Your task to perform on an android device: turn off improve location accuracy Image 0: 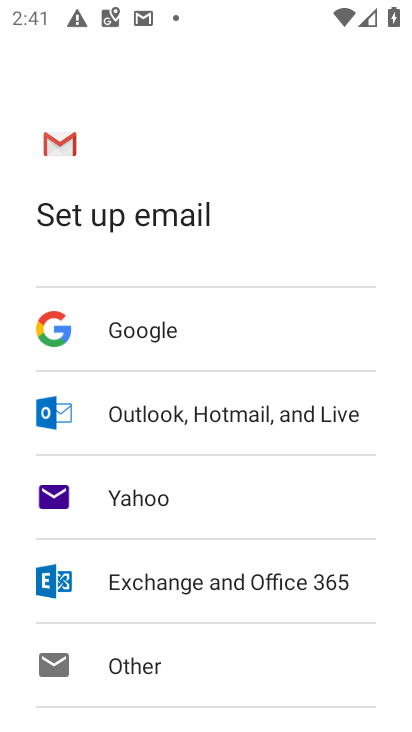
Step 0: press home button
Your task to perform on an android device: turn off improve location accuracy Image 1: 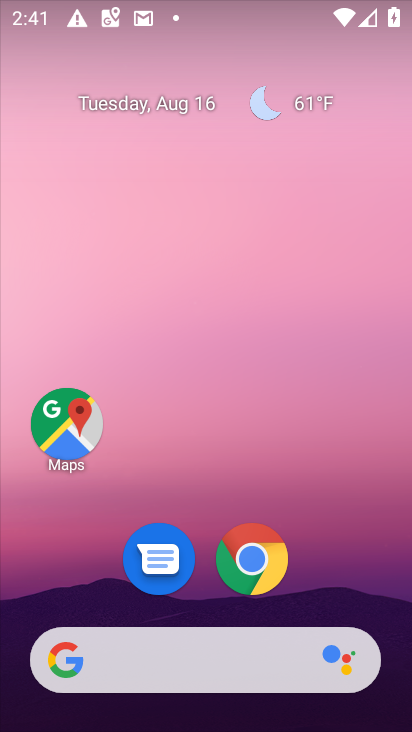
Step 1: drag from (391, 614) to (369, 110)
Your task to perform on an android device: turn off improve location accuracy Image 2: 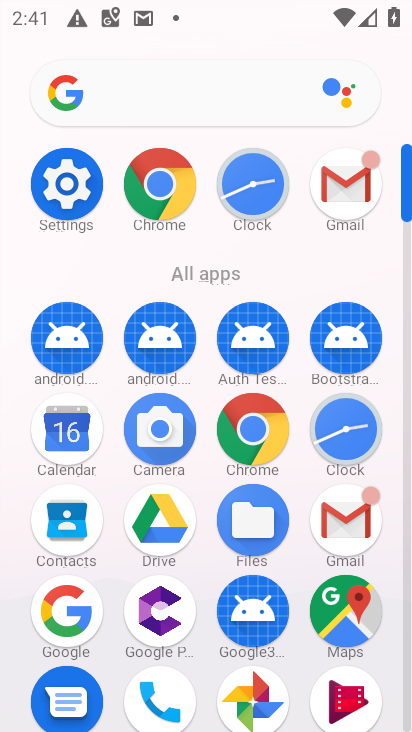
Step 2: click (408, 699)
Your task to perform on an android device: turn off improve location accuracy Image 3: 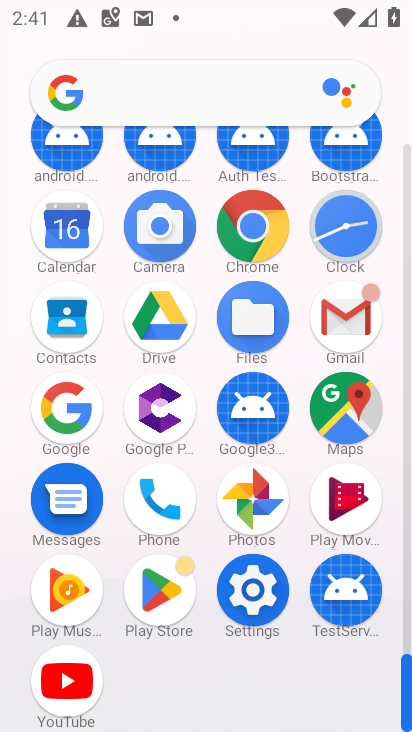
Step 3: click (253, 590)
Your task to perform on an android device: turn off improve location accuracy Image 4: 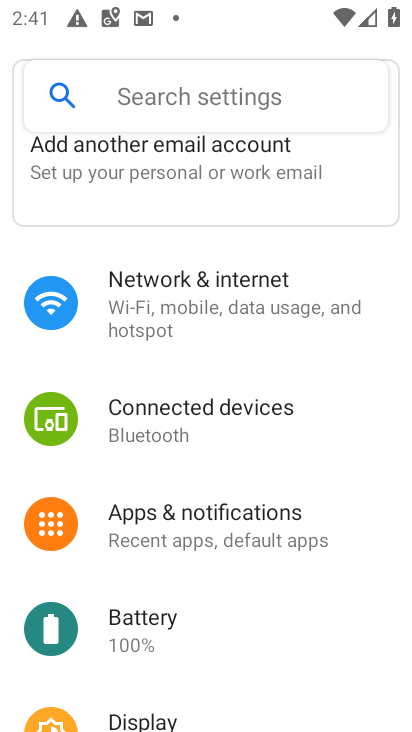
Step 4: drag from (299, 661) to (313, 285)
Your task to perform on an android device: turn off improve location accuracy Image 5: 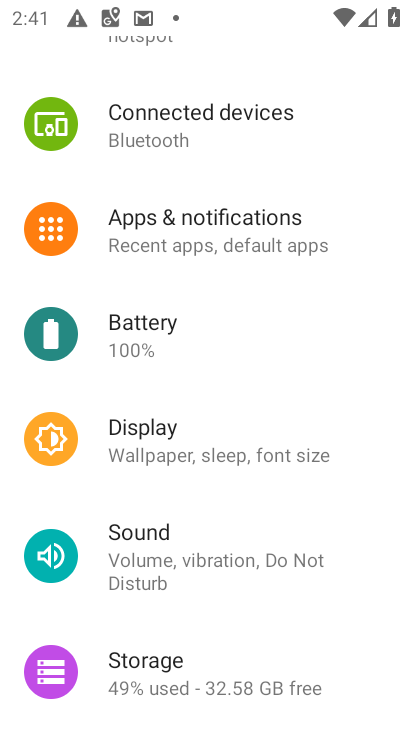
Step 5: drag from (341, 657) to (338, 300)
Your task to perform on an android device: turn off improve location accuracy Image 6: 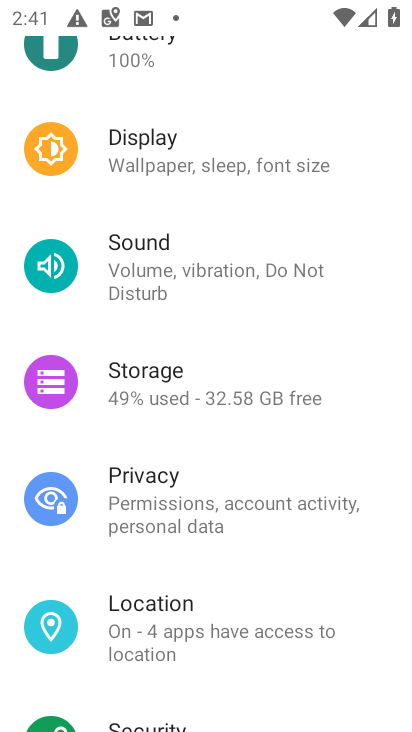
Step 6: click (158, 612)
Your task to perform on an android device: turn off improve location accuracy Image 7: 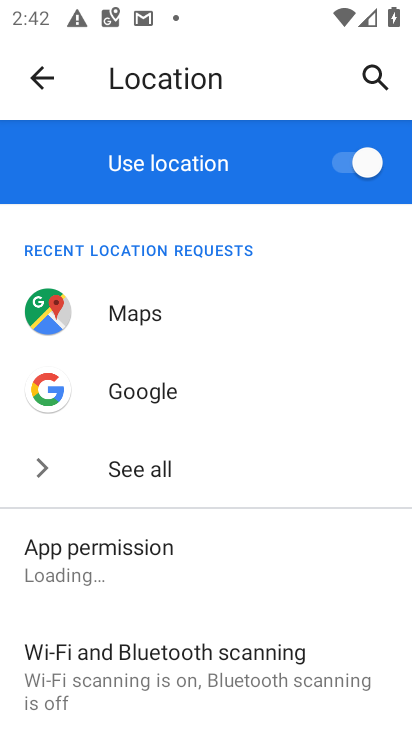
Step 7: drag from (271, 572) to (272, 218)
Your task to perform on an android device: turn off improve location accuracy Image 8: 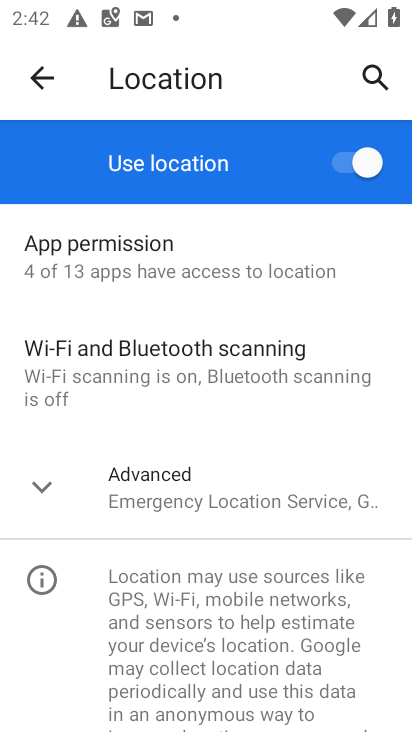
Step 8: click (44, 483)
Your task to perform on an android device: turn off improve location accuracy Image 9: 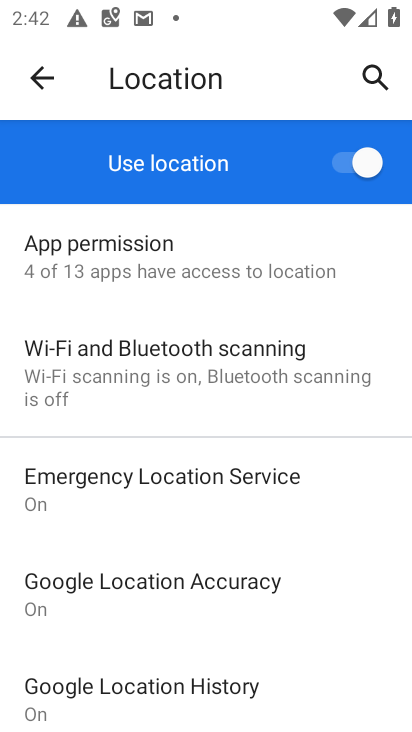
Step 9: drag from (213, 612) to (222, 378)
Your task to perform on an android device: turn off improve location accuracy Image 10: 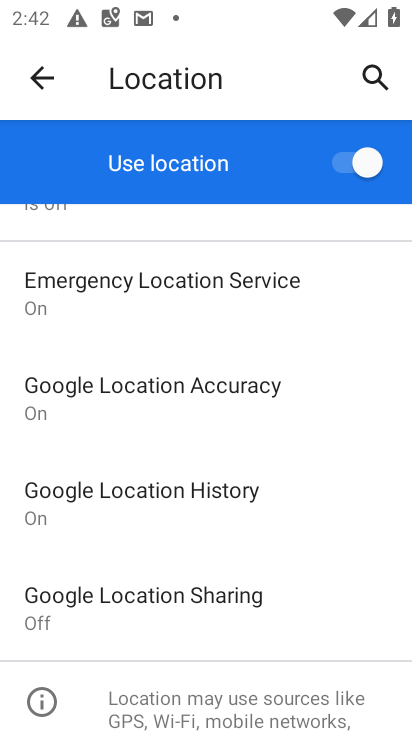
Step 10: click (146, 392)
Your task to perform on an android device: turn off improve location accuracy Image 11: 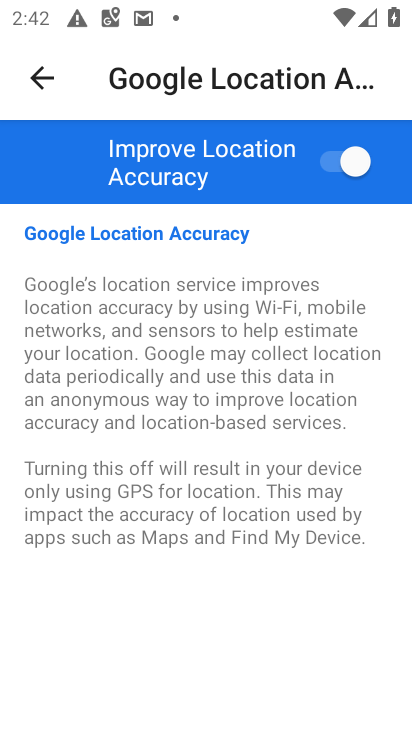
Step 11: click (326, 160)
Your task to perform on an android device: turn off improve location accuracy Image 12: 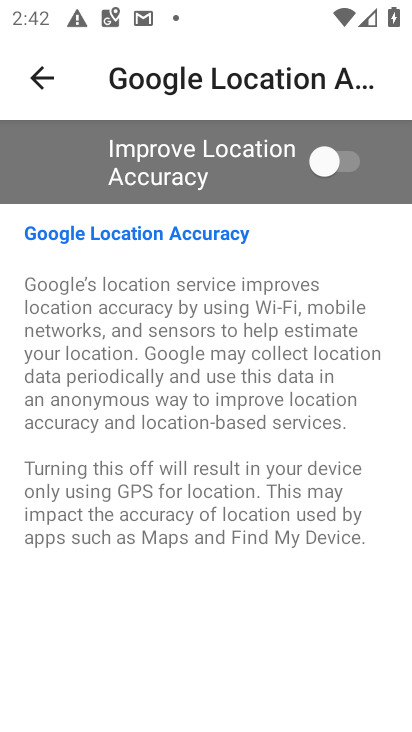
Step 12: task complete